Your task to perform on an android device: turn notification dots off Image 0: 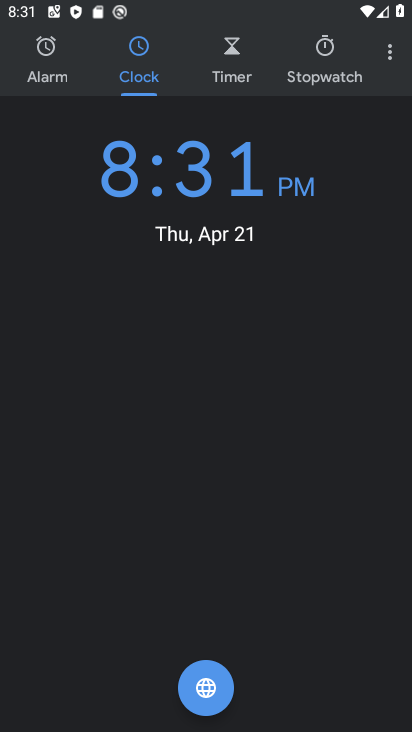
Step 0: press home button
Your task to perform on an android device: turn notification dots off Image 1: 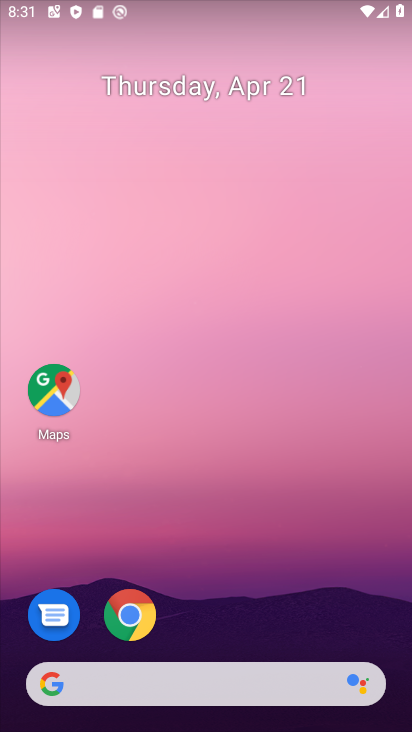
Step 1: drag from (261, 527) to (264, 4)
Your task to perform on an android device: turn notification dots off Image 2: 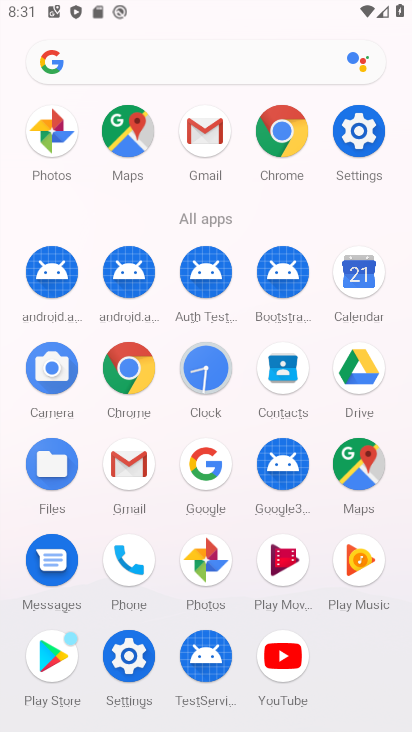
Step 2: click (358, 130)
Your task to perform on an android device: turn notification dots off Image 3: 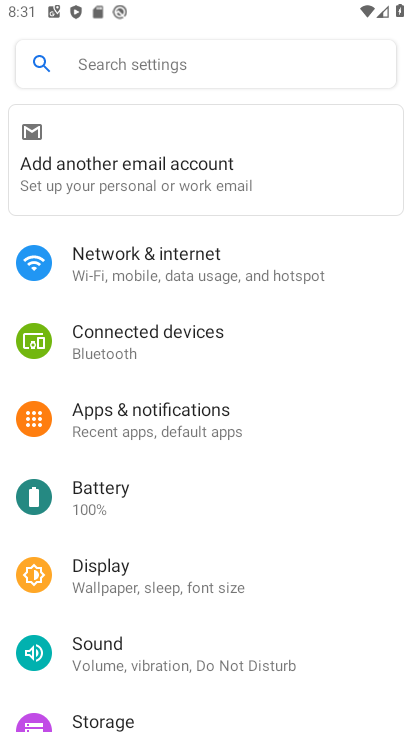
Step 3: click (197, 432)
Your task to perform on an android device: turn notification dots off Image 4: 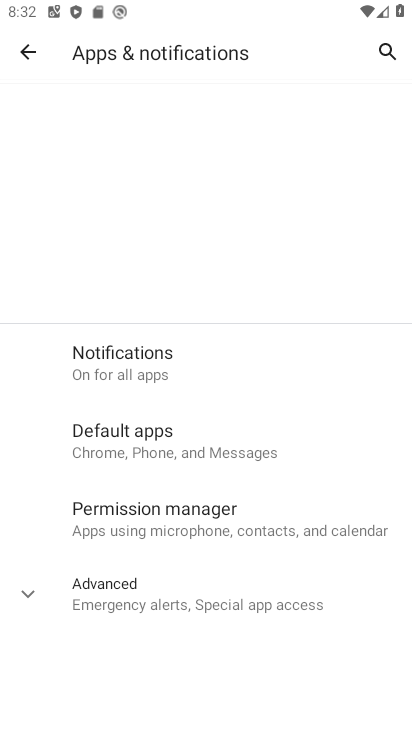
Step 4: click (144, 352)
Your task to perform on an android device: turn notification dots off Image 5: 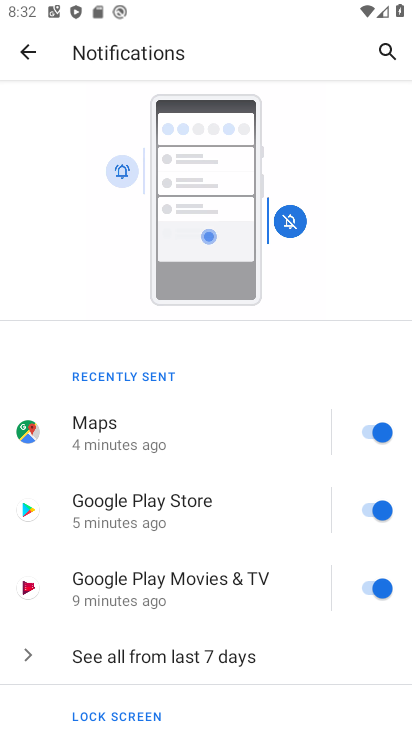
Step 5: drag from (255, 601) to (237, 45)
Your task to perform on an android device: turn notification dots off Image 6: 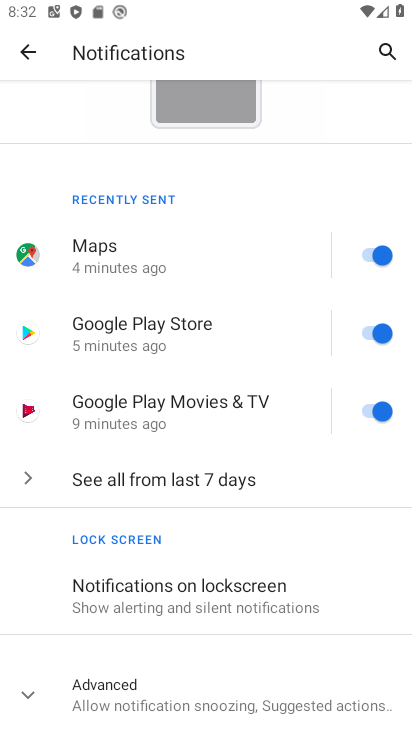
Step 6: click (121, 693)
Your task to perform on an android device: turn notification dots off Image 7: 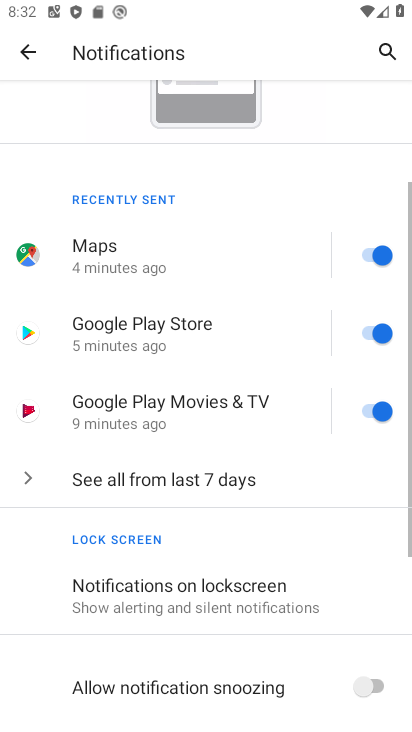
Step 7: drag from (219, 575) to (195, 154)
Your task to perform on an android device: turn notification dots off Image 8: 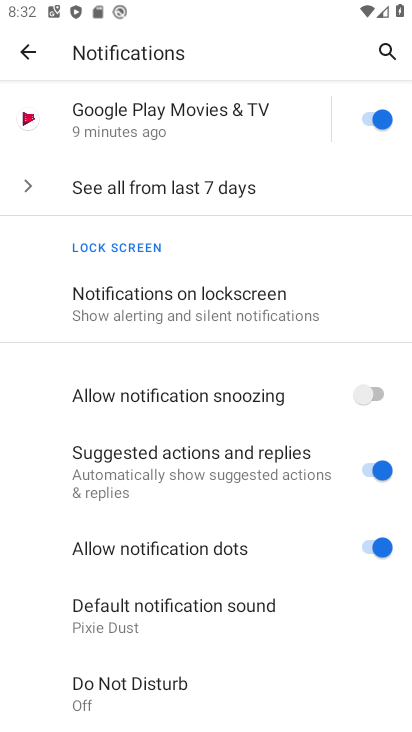
Step 8: click (371, 552)
Your task to perform on an android device: turn notification dots off Image 9: 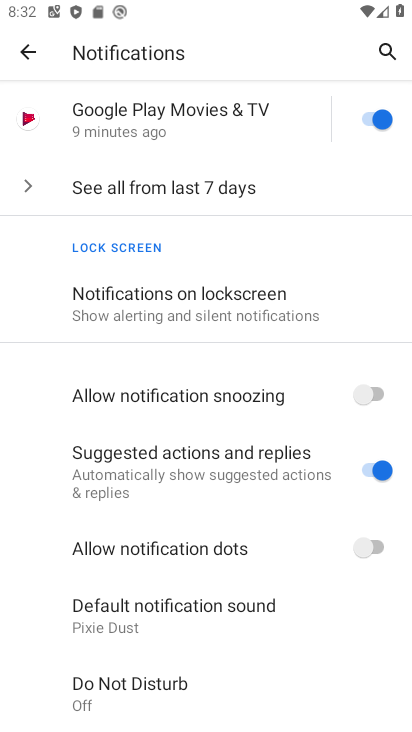
Step 9: task complete